Your task to perform on an android device: Go to ESPN.com Image 0: 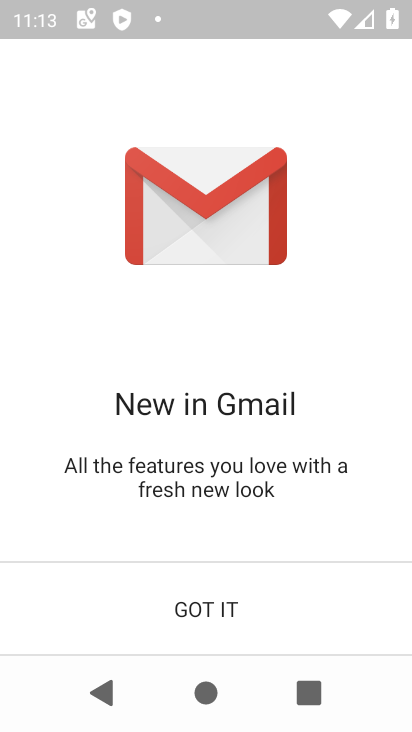
Step 0: press home button
Your task to perform on an android device: Go to ESPN.com Image 1: 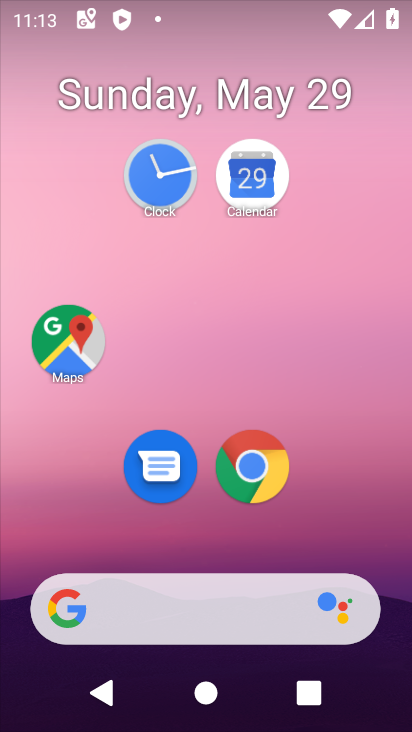
Step 1: click (275, 476)
Your task to perform on an android device: Go to ESPN.com Image 2: 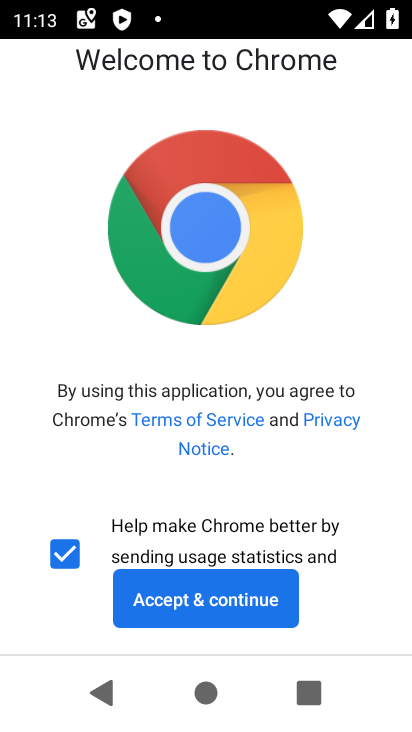
Step 2: click (234, 593)
Your task to perform on an android device: Go to ESPN.com Image 3: 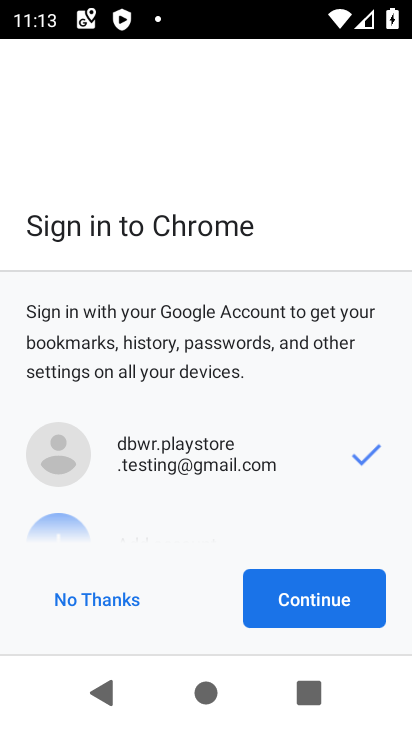
Step 3: click (319, 607)
Your task to perform on an android device: Go to ESPN.com Image 4: 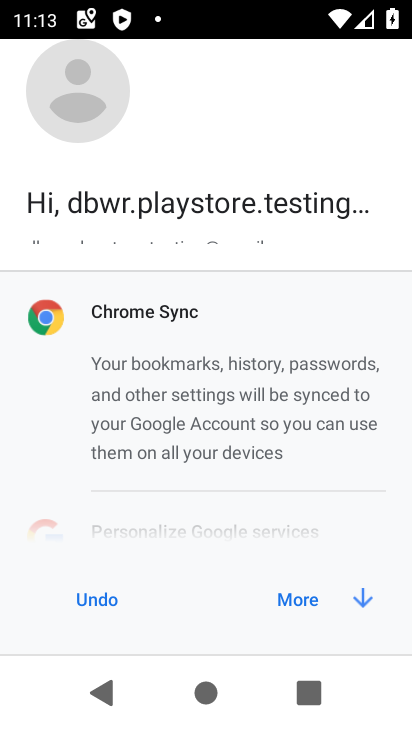
Step 4: click (319, 607)
Your task to perform on an android device: Go to ESPN.com Image 5: 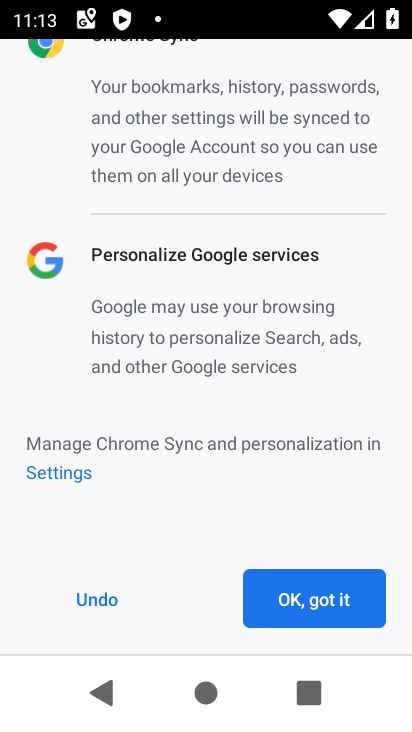
Step 5: click (319, 607)
Your task to perform on an android device: Go to ESPN.com Image 6: 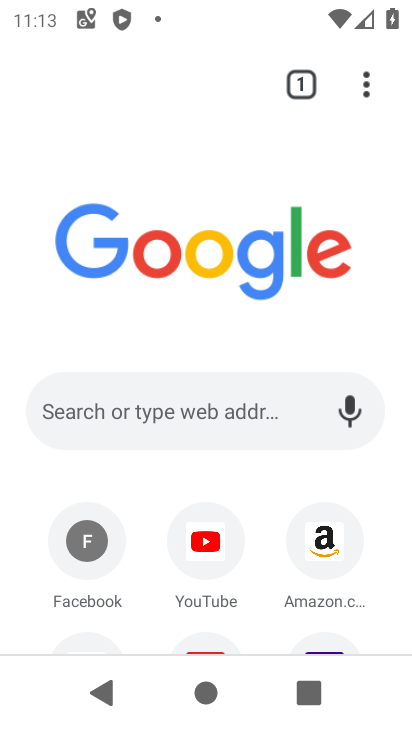
Step 6: drag from (252, 515) to (287, 226)
Your task to perform on an android device: Go to ESPN.com Image 7: 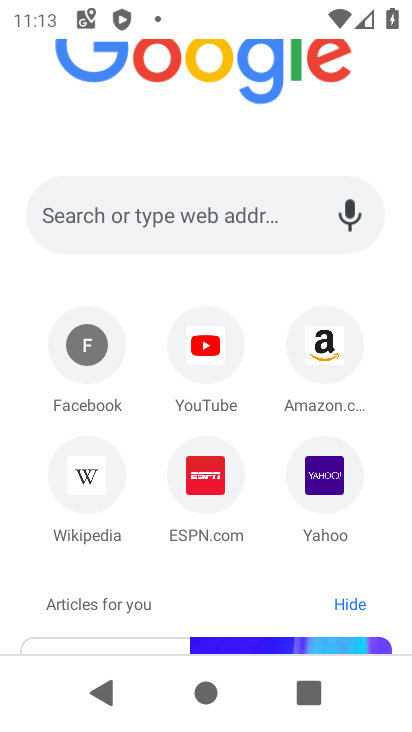
Step 7: click (209, 477)
Your task to perform on an android device: Go to ESPN.com Image 8: 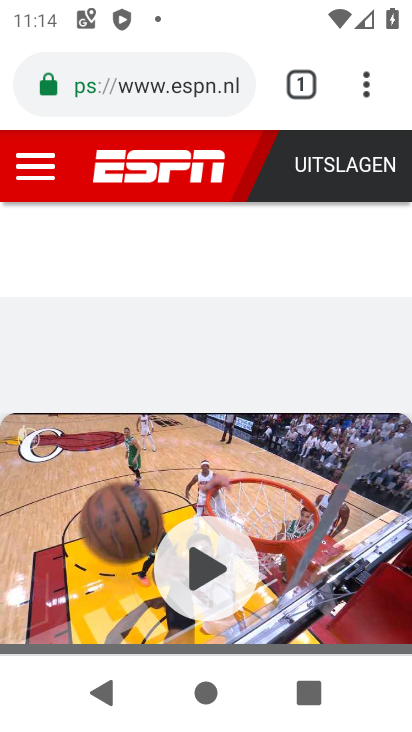
Step 8: task complete